Your task to perform on an android device: Go to Yahoo.com Image 0: 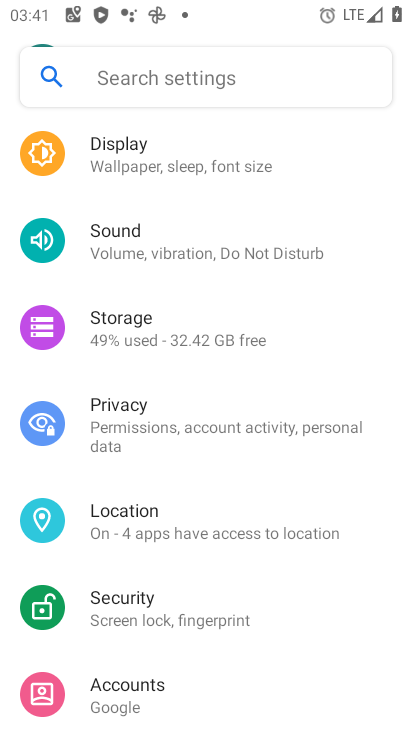
Step 0: press home button
Your task to perform on an android device: Go to Yahoo.com Image 1: 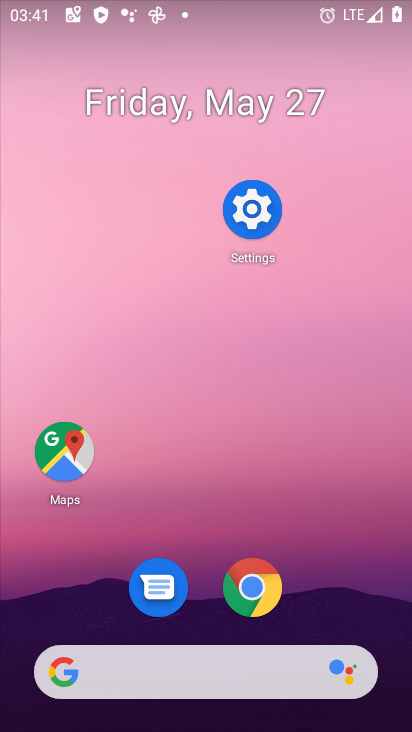
Step 1: click (59, 673)
Your task to perform on an android device: Go to Yahoo.com Image 2: 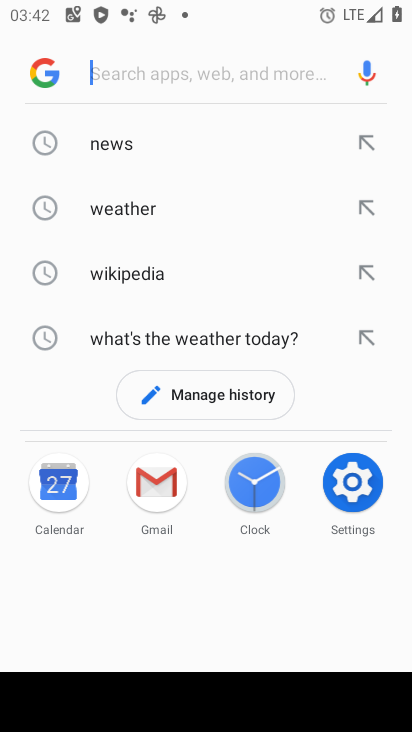
Step 2: type "yahoo.com"
Your task to perform on an android device: Go to Yahoo.com Image 3: 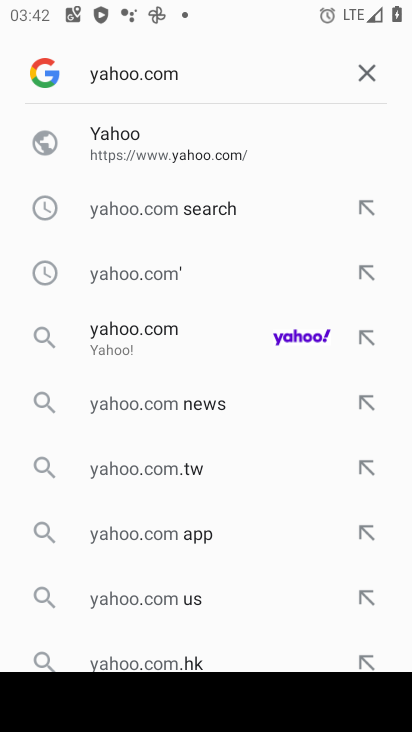
Step 3: click (133, 141)
Your task to perform on an android device: Go to Yahoo.com Image 4: 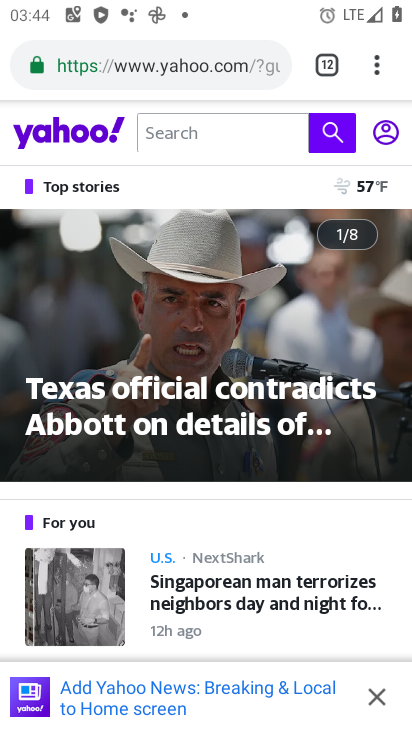
Step 4: task complete